Your task to perform on an android device: clear history in the chrome app Image 0: 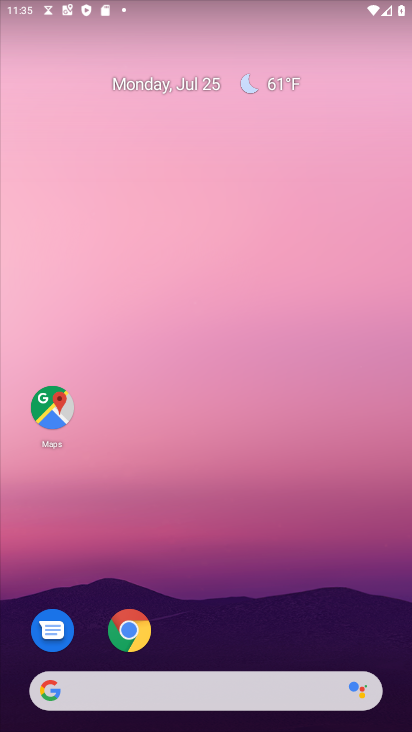
Step 0: click (126, 629)
Your task to perform on an android device: clear history in the chrome app Image 1: 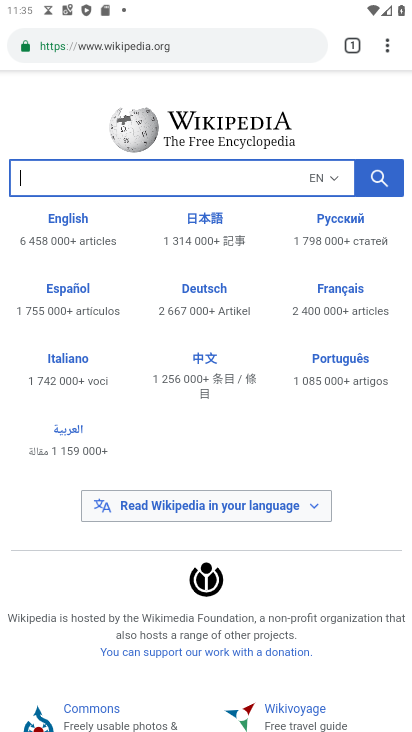
Step 1: click (381, 52)
Your task to perform on an android device: clear history in the chrome app Image 2: 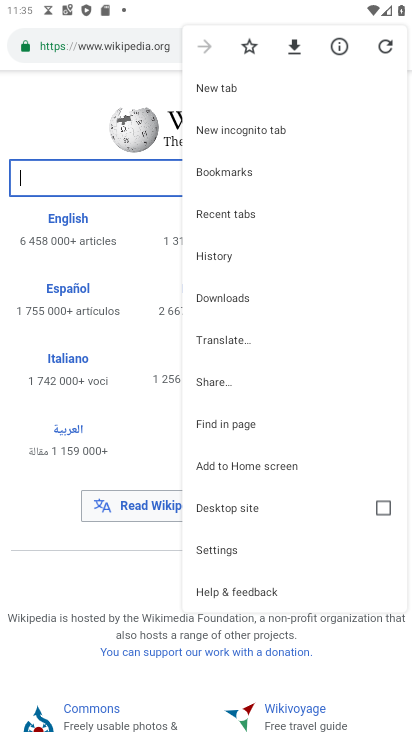
Step 2: click (223, 260)
Your task to perform on an android device: clear history in the chrome app Image 3: 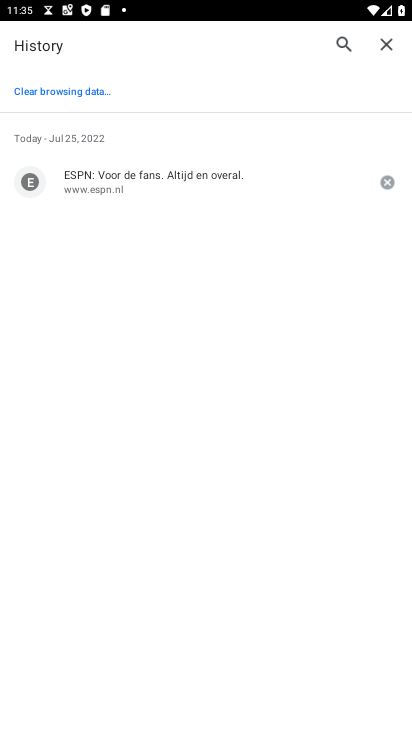
Step 3: click (37, 89)
Your task to perform on an android device: clear history in the chrome app Image 4: 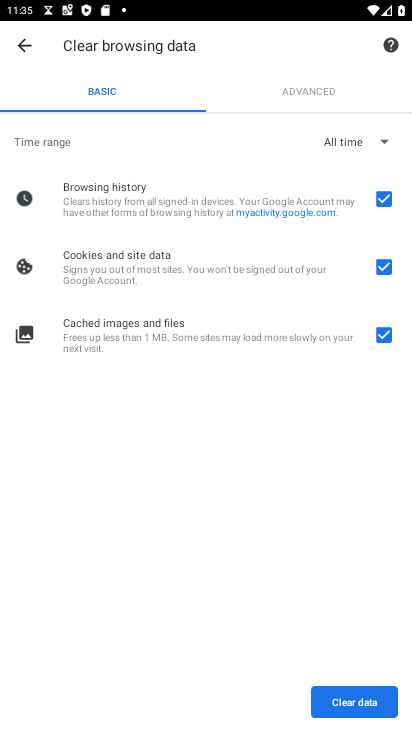
Step 4: click (372, 704)
Your task to perform on an android device: clear history in the chrome app Image 5: 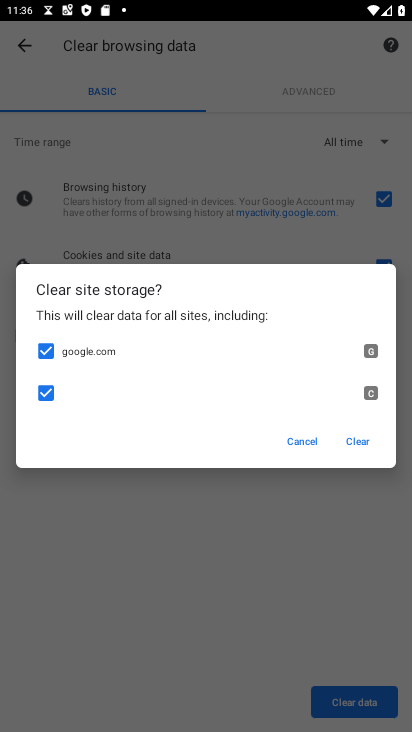
Step 5: click (359, 443)
Your task to perform on an android device: clear history in the chrome app Image 6: 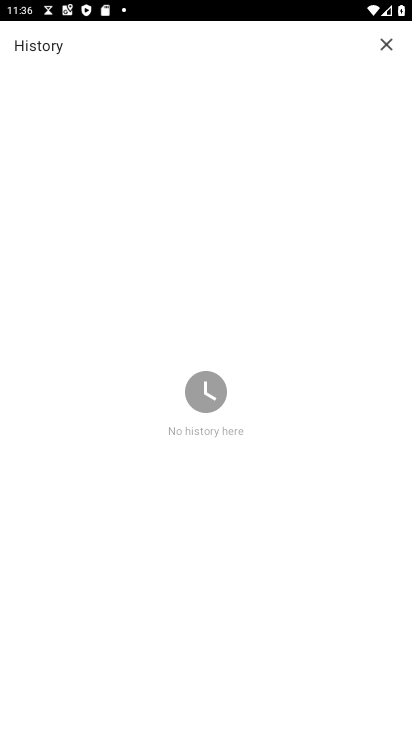
Step 6: task complete